Your task to perform on an android device: add a label to a message in the gmail app Image 0: 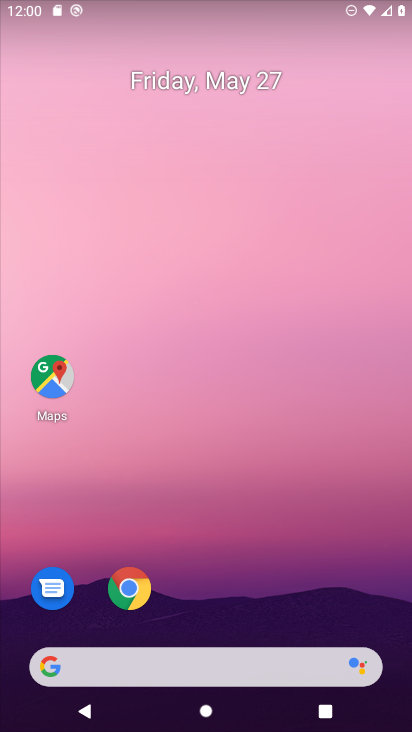
Step 0: drag from (374, 614) to (307, 71)
Your task to perform on an android device: add a label to a message in the gmail app Image 1: 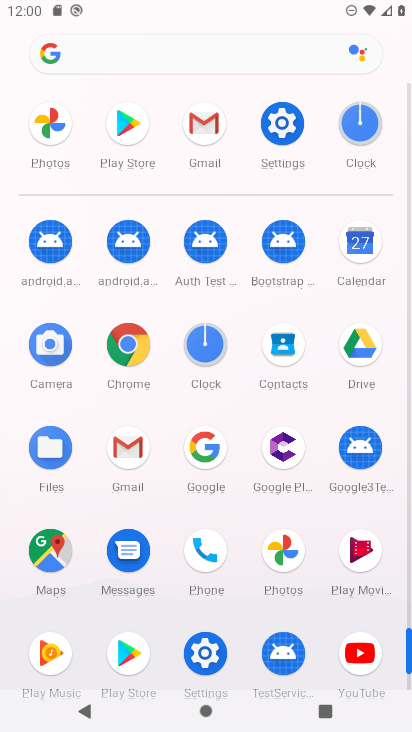
Step 1: click (130, 445)
Your task to perform on an android device: add a label to a message in the gmail app Image 2: 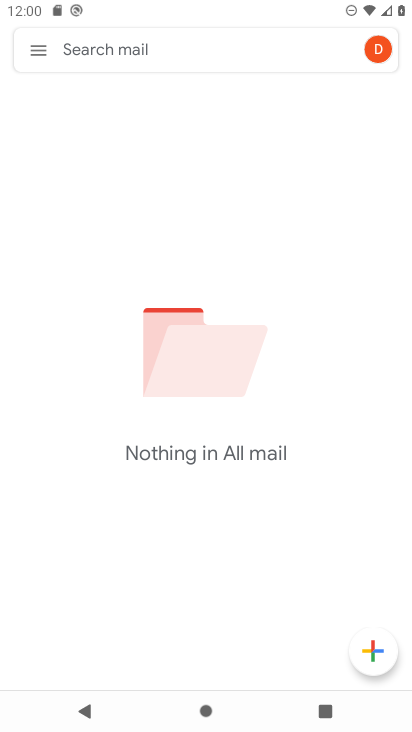
Step 2: click (36, 46)
Your task to perform on an android device: add a label to a message in the gmail app Image 3: 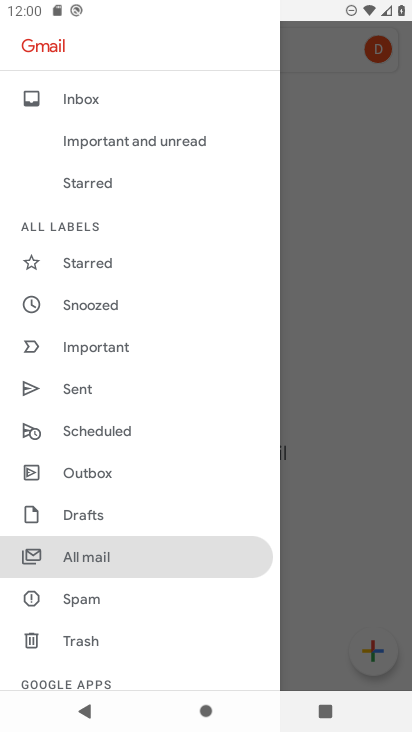
Step 3: click (139, 567)
Your task to perform on an android device: add a label to a message in the gmail app Image 4: 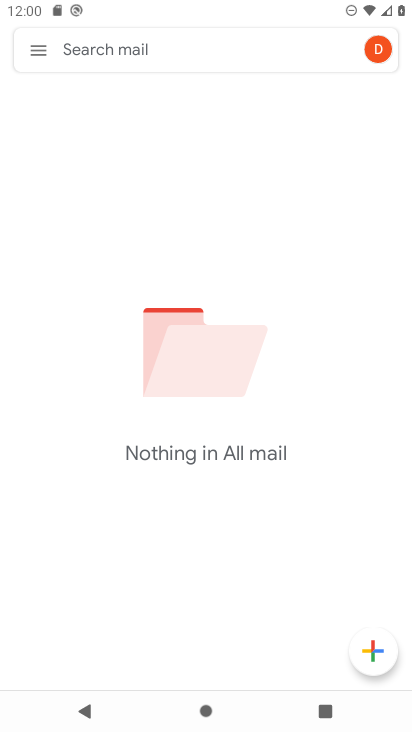
Step 4: task complete